Your task to perform on an android device: change keyboard looks Image 0: 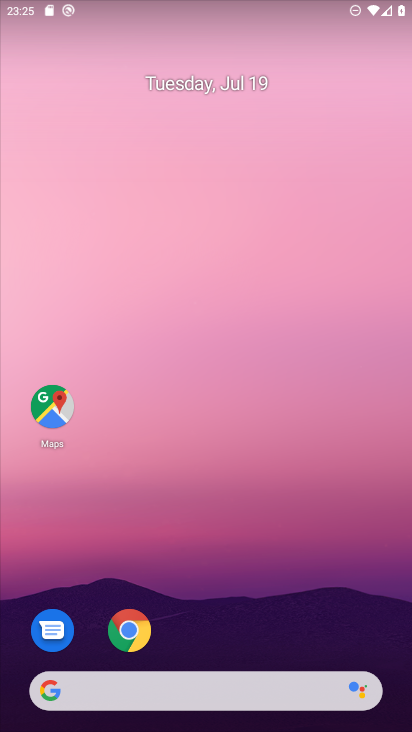
Step 0: drag from (221, 618) to (199, 172)
Your task to perform on an android device: change keyboard looks Image 1: 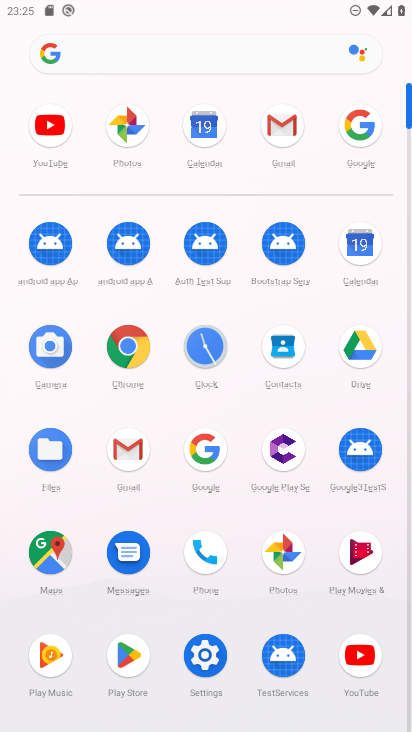
Step 1: click (216, 656)
Your task to perform on an android device: change keyboard looks Image 2: 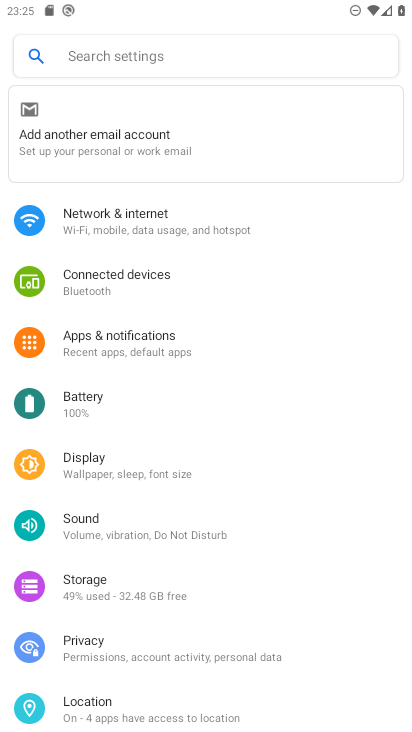
Step 2: drag from (178, 638) to (185, 207)
Your task to perform on an android device: change keyboard looks Image 3: 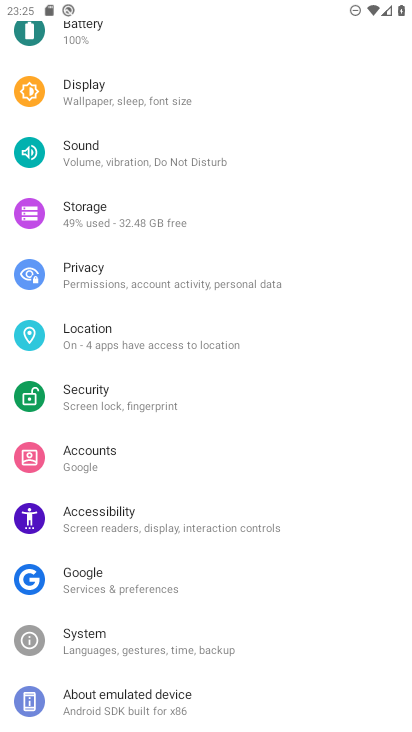
Step 3: click (166, 636)
Your task to perform on an android device: change keyboard looks Image 4: 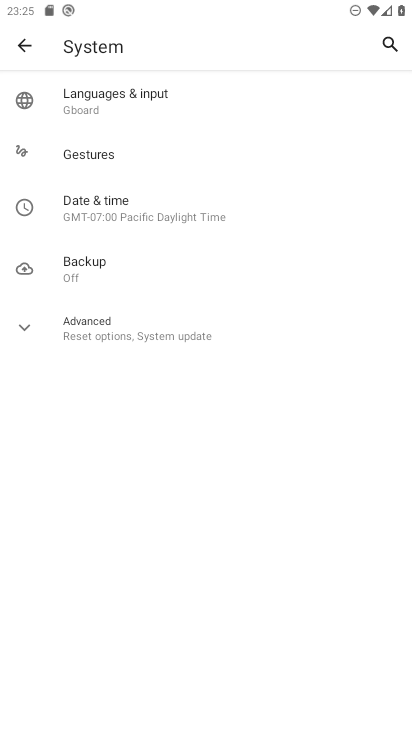
Step 4: click (147, 115)
Your task to perform on an android device: change keyboard looks Image 5: 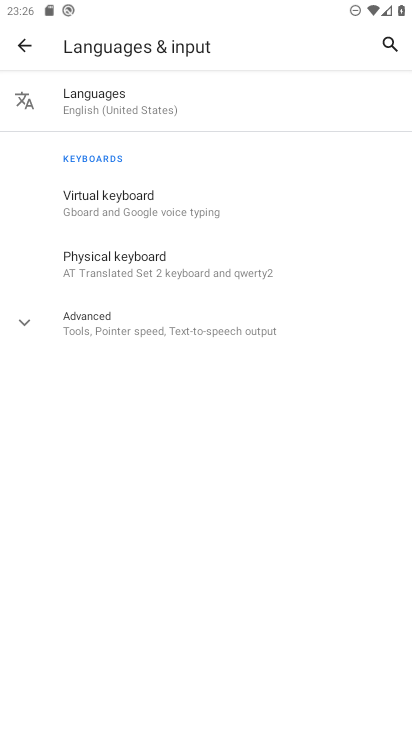
Step 5: click (139, 215)
Your task to perform on an android device: change keyboard looks Image 6: 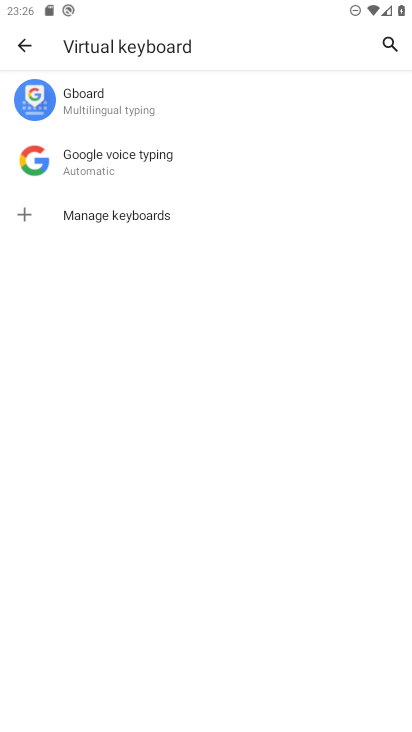
Step 6: click (114, 109)
Your task to perform on an android device: change keyboard looks Image 7: 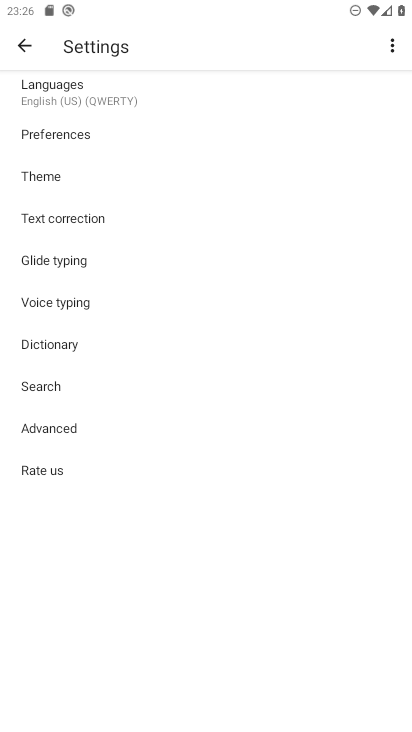
Step 7: click (53, 186)
Your task to perform on an android device: change keyboard looks Image 8: 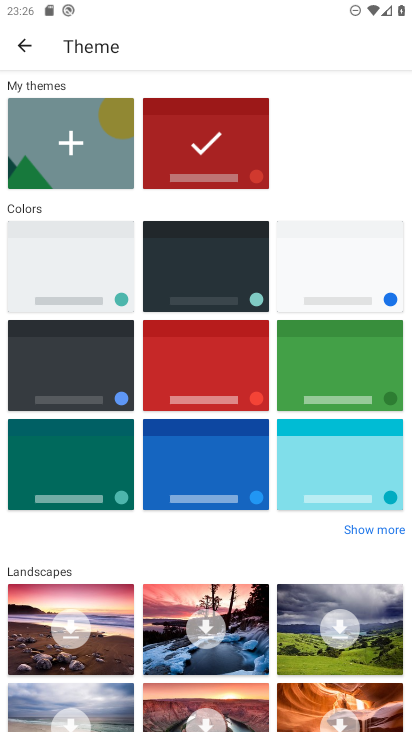
Step 8: click (179, 449)
Your task to perform on an android device: change keyboard looks Image 9: 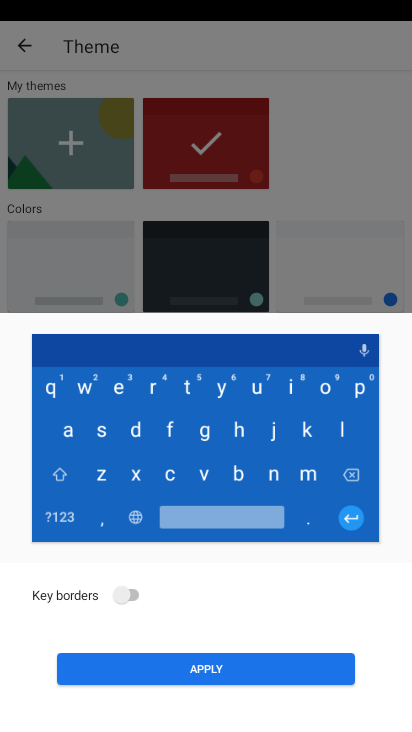
Step 9: click (221, 672)
Your task to perform on an android device: change keyboard looks Image 10: 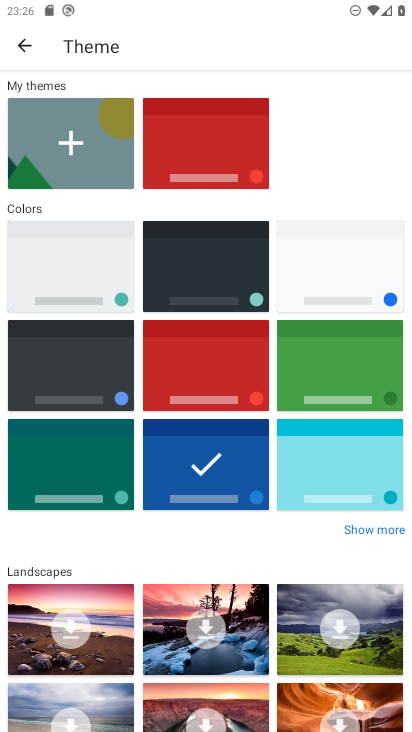
Step 10: task complete